Your task to perform on an android device: toggle improve location accuracy Image 0: 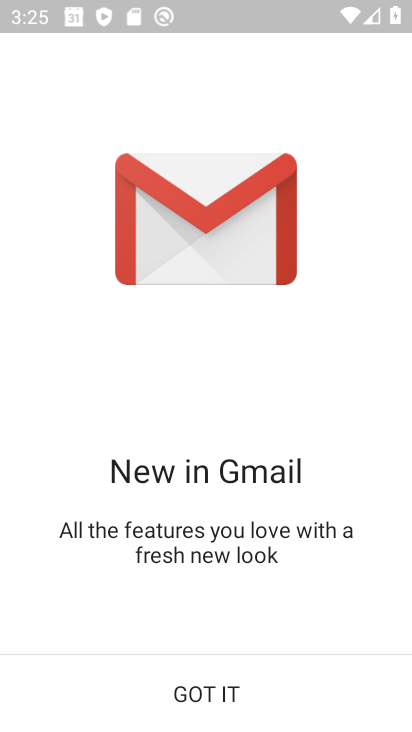
Step 0: press home button
Your task to perform on an android device: toggle improve location accuracy Image 1: 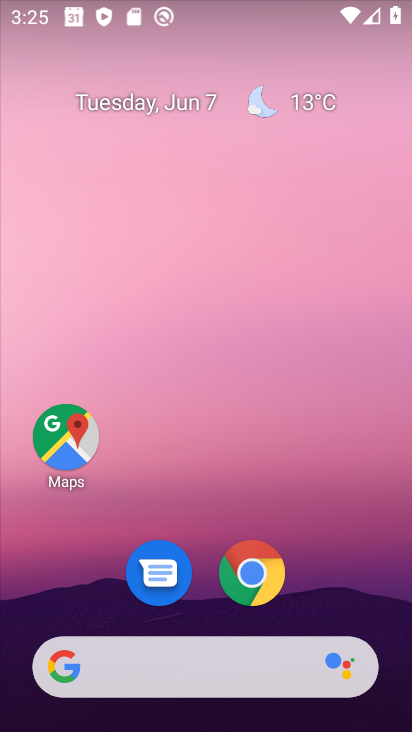
Step 1: drag from (375, 612) to (296, 226)
Your task to perform on an android device: toggle improve location accuracy Image 2: 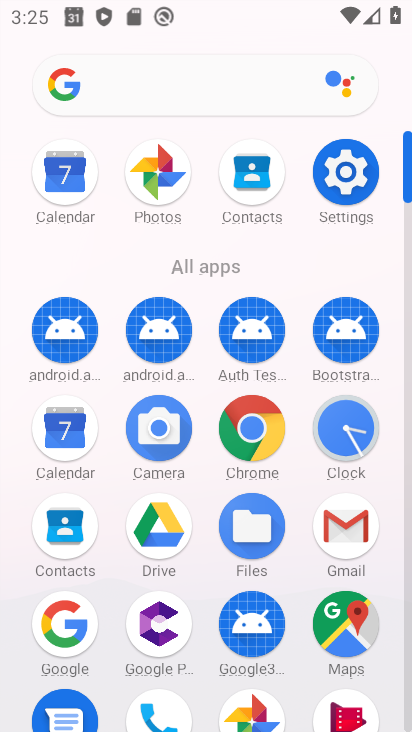
Step 2: click (347, 192)
Your task to perform on an android device: toggle improve location accuracy Image 3: 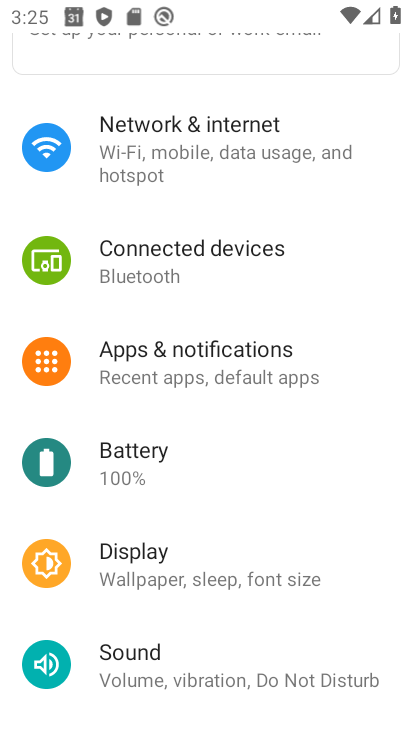
Step 3: drag from (283, 614) to (209, 98)
Your task to perform on an android device: toggle improve location accuracy Image 4: 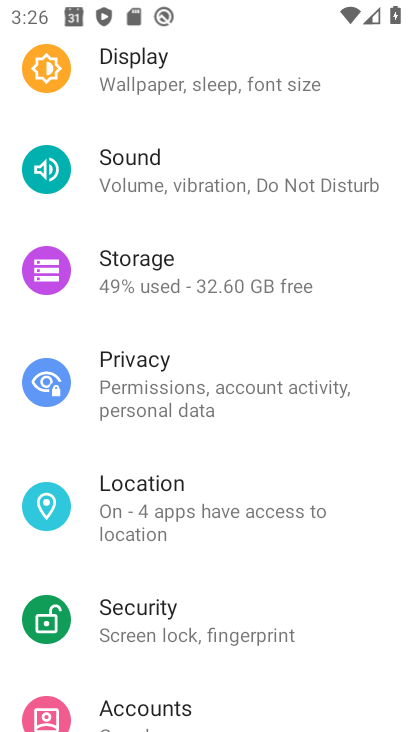
Step 4: click (214, 521)
Your task to perform on an android device: toggle improve location accuracy Image 5: 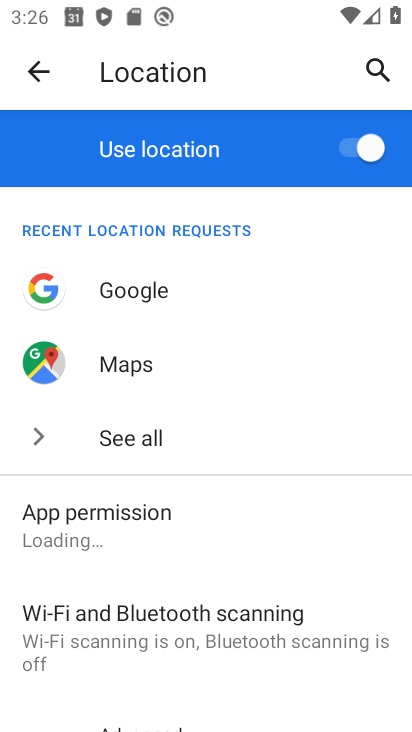
Step 5: drag from (254, 566) to (201, 180)
Your task to perform on an android device: toggle improve location accuracy Image 6: 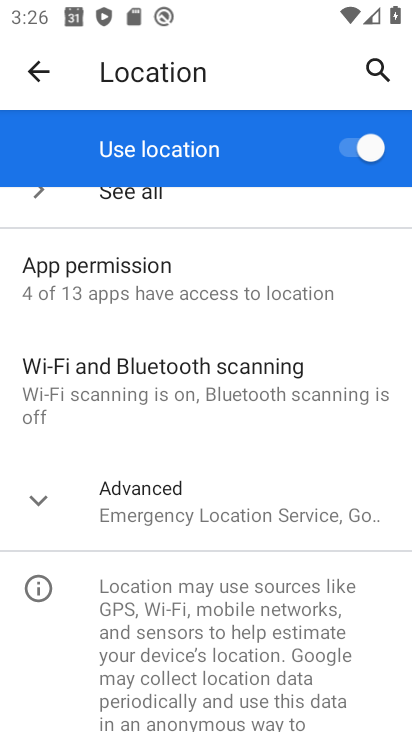
Step 6: click (307, 512)
Your task to perform on an android device: toggle improve location accuracy Image 7: 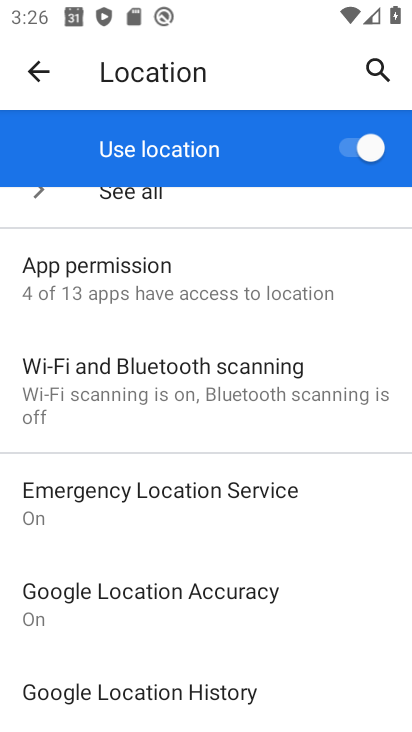
Step 7: click (303, 606)
Your task to perform on an android device: toggle improve location accuracy Image 8: 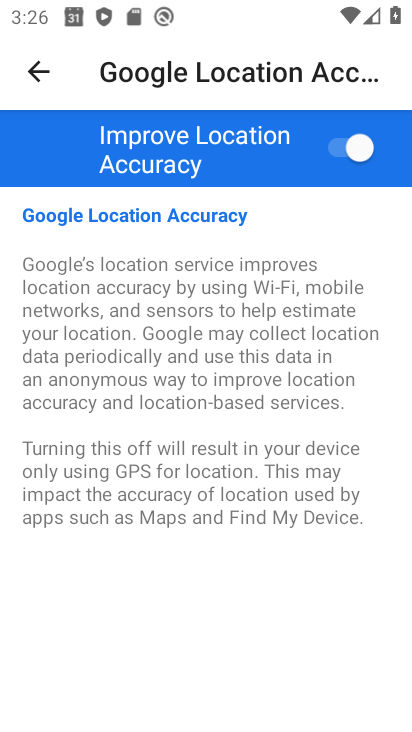
Step 8: click (327, 140)
Your task to perform on an android device: toggle improve location accuracy Image 9: 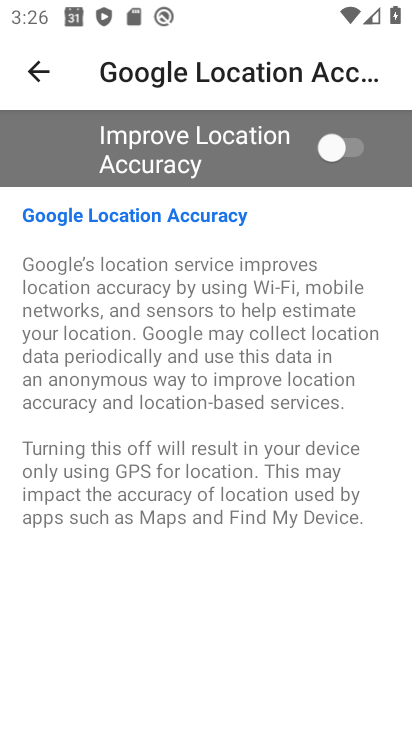
Step 9: task complete